Your task to perform on an android device: turn pop-ups off in chrome Image 0: 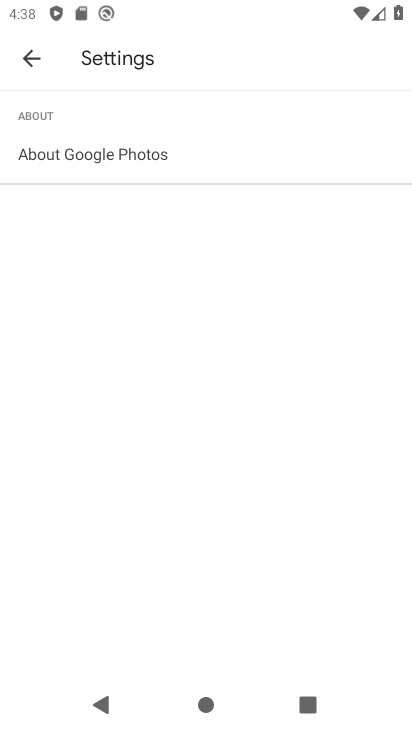
Step 0: press home button
Your task to perform on an android device: turn pop-ups off in chrome Image 1: 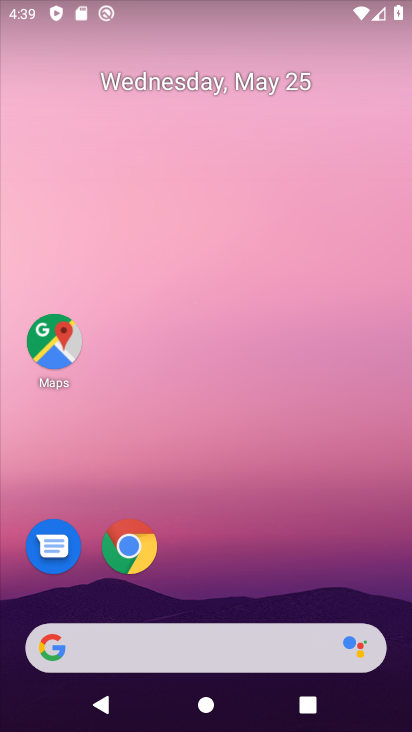
Step 1: click (145, 543)
Your task to perform on an android device: turn pop-ups off in chrome Image 2: 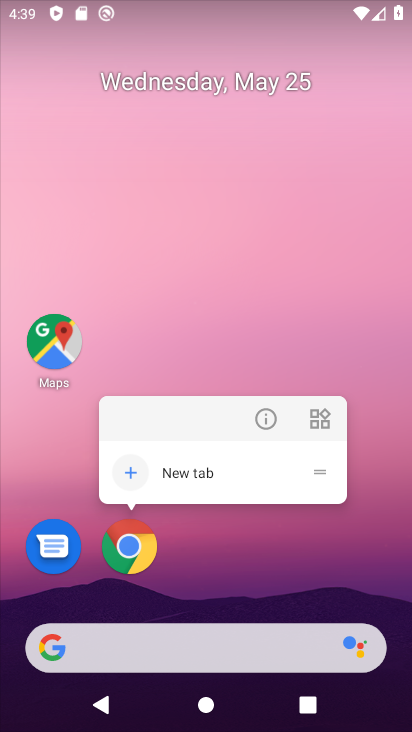
Step 2: click (151, 549)
Your task to perform on an android device: turn pop-ups off in chrome Image 3: 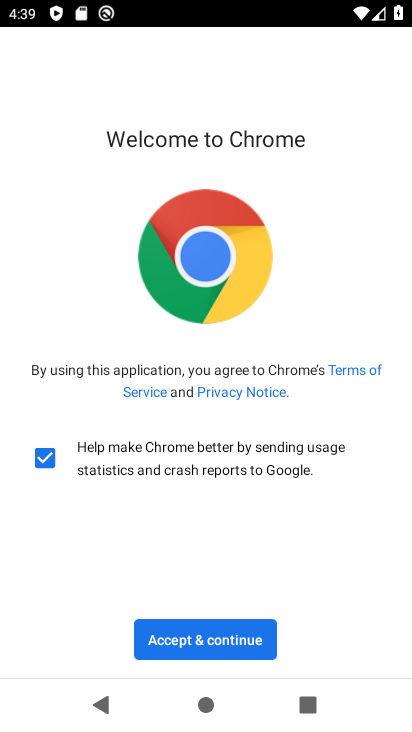
Step 3: click (250, 638)
Your task to perform on an android device: turn pop-ups off in chrome Image 4: 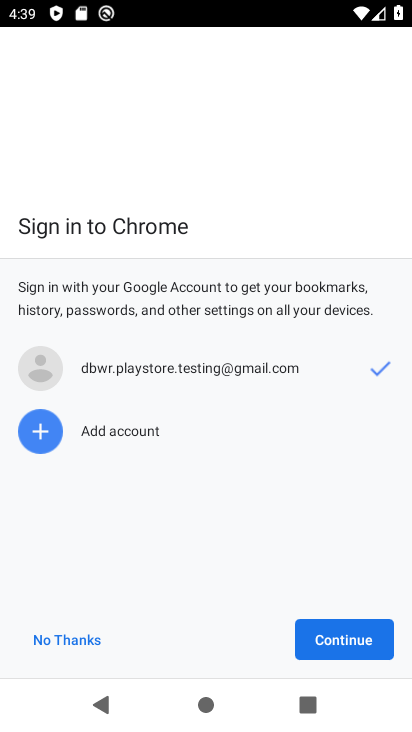
Step 4: click (338, 634)
Your task to perform on an android device: turn pop-ups off in chrome Image 5: 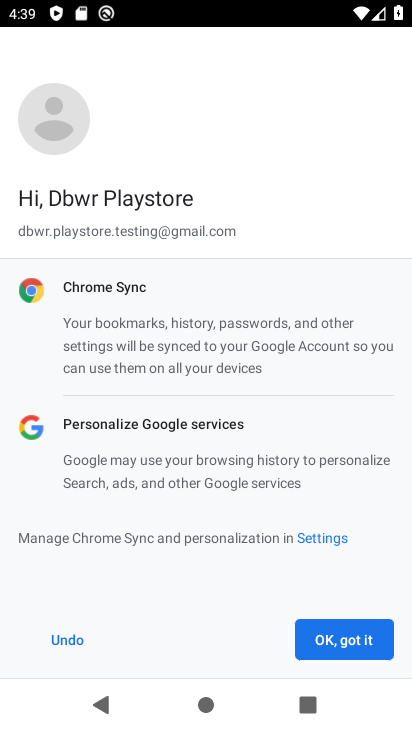
Step 5: click (338, 634)
Your task to perform on an android device: turn pop-ups off in chrome Image 6: 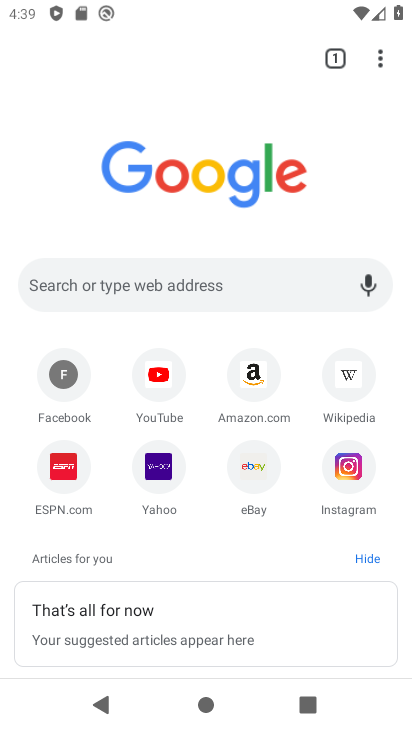
Step 6: click (381, 60)
Your task to perform on an android device: turn pop-ups off in chrome Image 7: 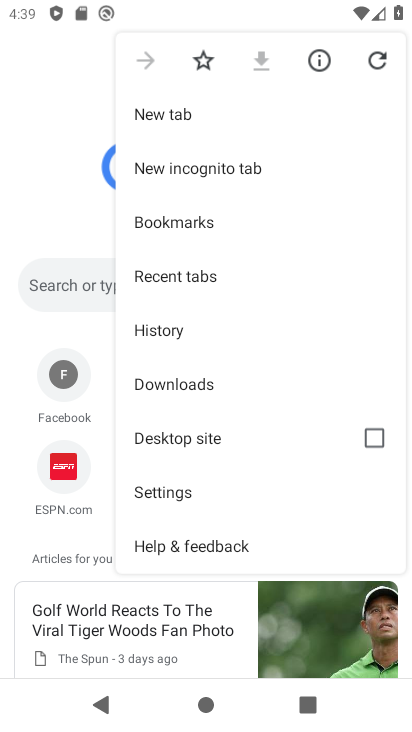
Step 7: click (224, 501)
Your task to perform on an android device: turn pop-ups off in chrome Image 8: 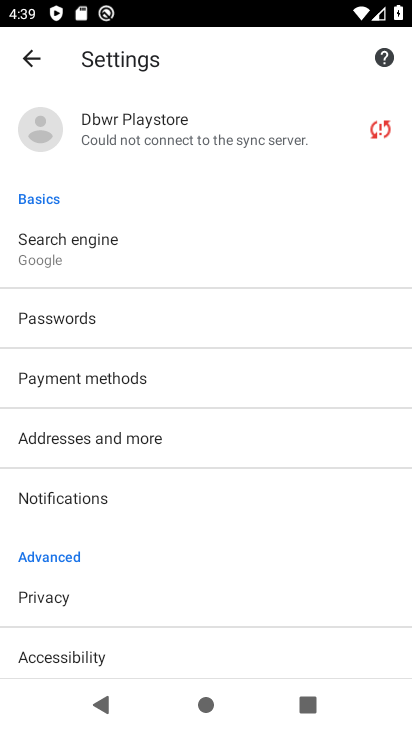
Step 8: drag from (286, 446) to (286, 109)
Your task to perform on an android device: turn pop-ups off in chrome Image 9: 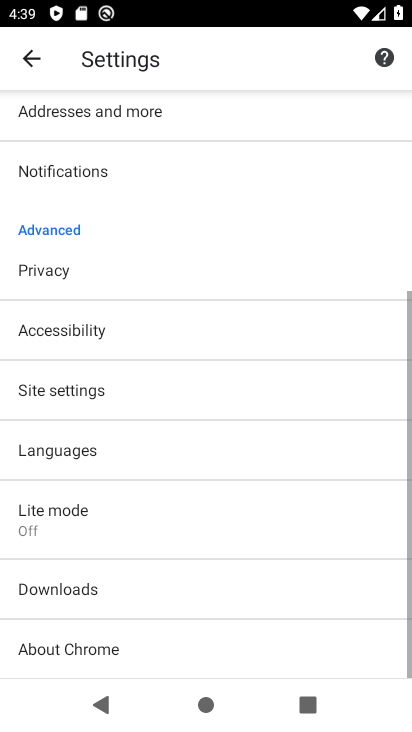
Step 9: click (129, 392)
Your task to perform on an android device: turn pop-ups off in chrome Image 10: 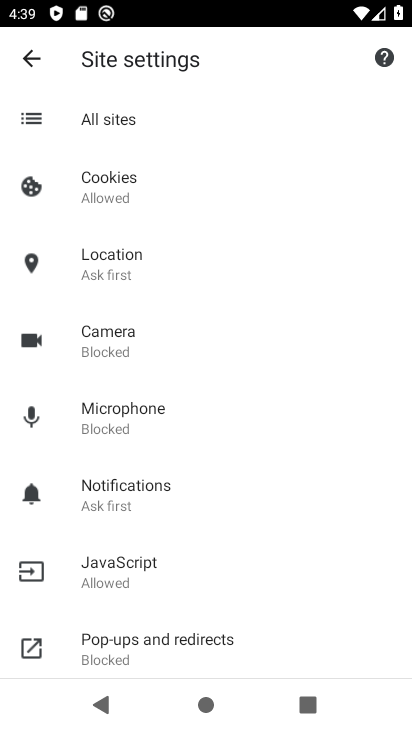
Step 10: click (152, 635)
Your task to perform on an android device: turn pop-ups off in chrome Image 11: 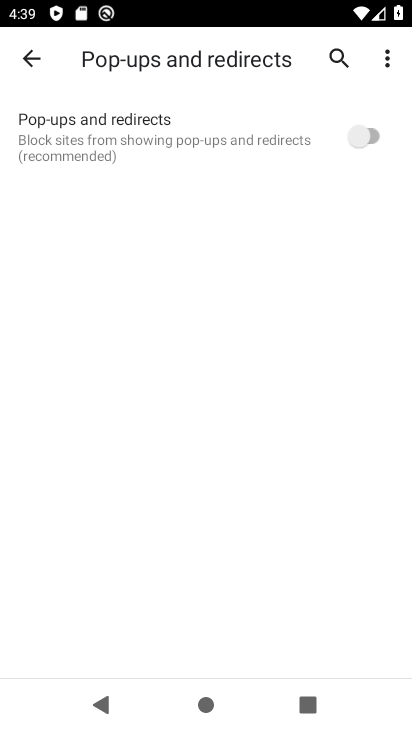
Step 11: click (367, 135)
Your task to perform on an android device: turn pop-ups off in chrome Image 12: 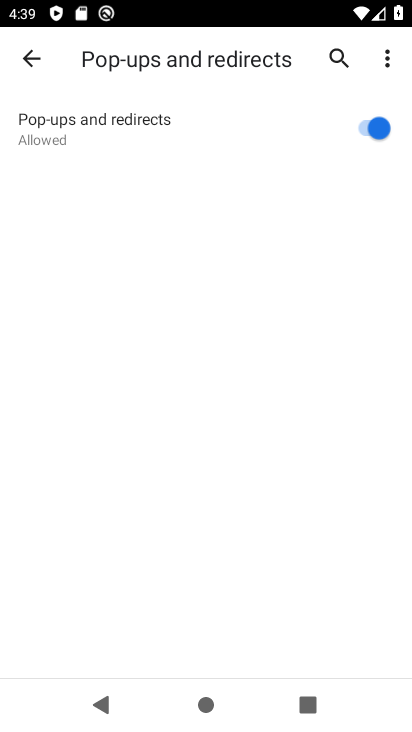
Step 12: task complete